Your task to perform on an android device: Go to Yahoo.com Image 0: 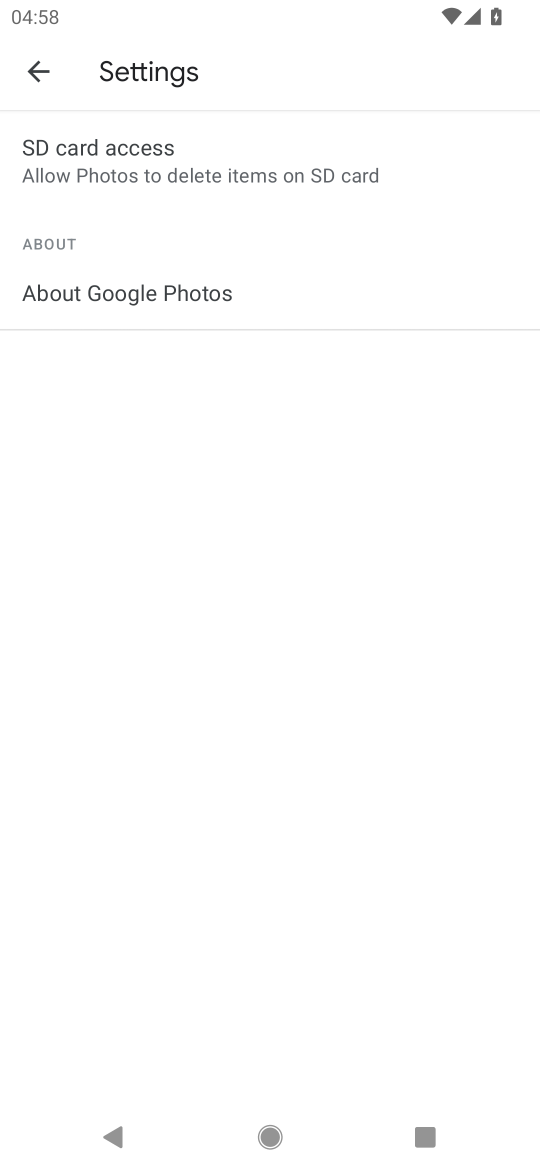
Step 0: press home button
Your task to perform on an android device: Go to Yahoo.com Image 1: 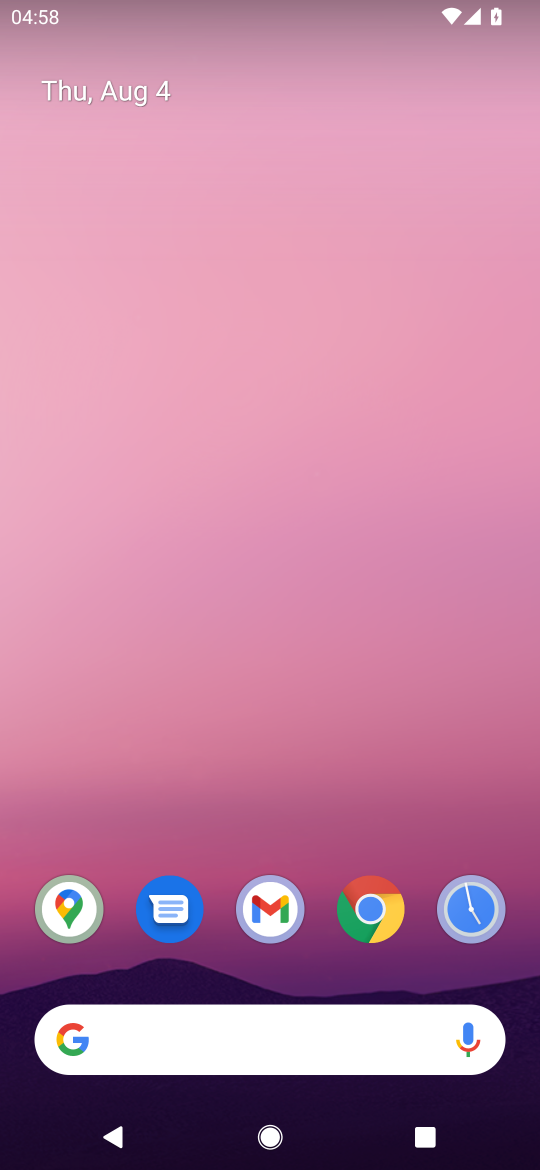
Step 1: click (65, 1035)
Your task to perform on an android device: Go to Yahoo.com Image 2: 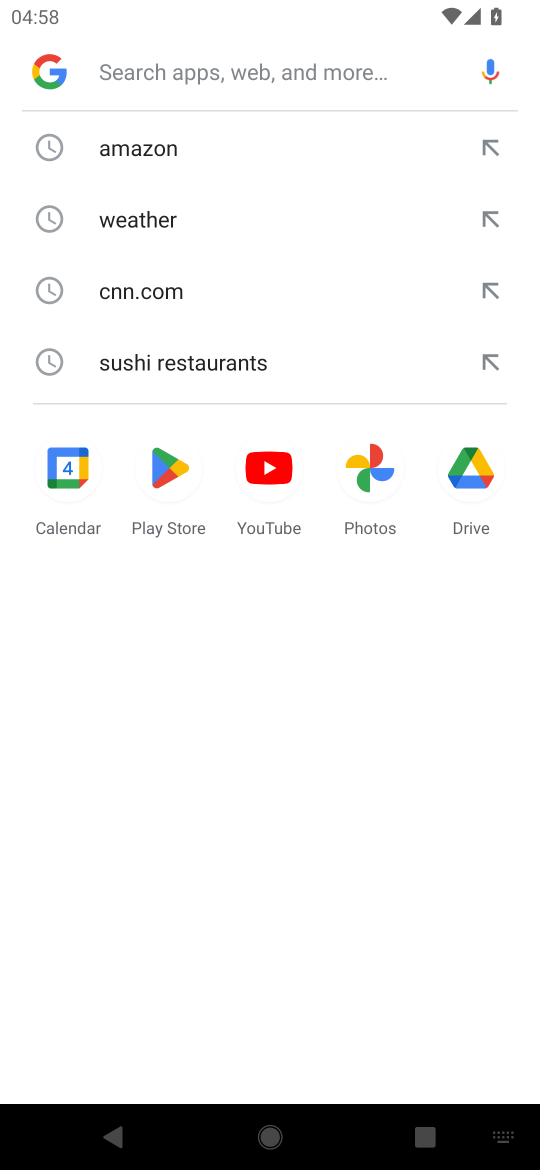
Step 2: type "Yahoo.com"
Your task to perform on an android device: Go to Yahoo.com Image 3: 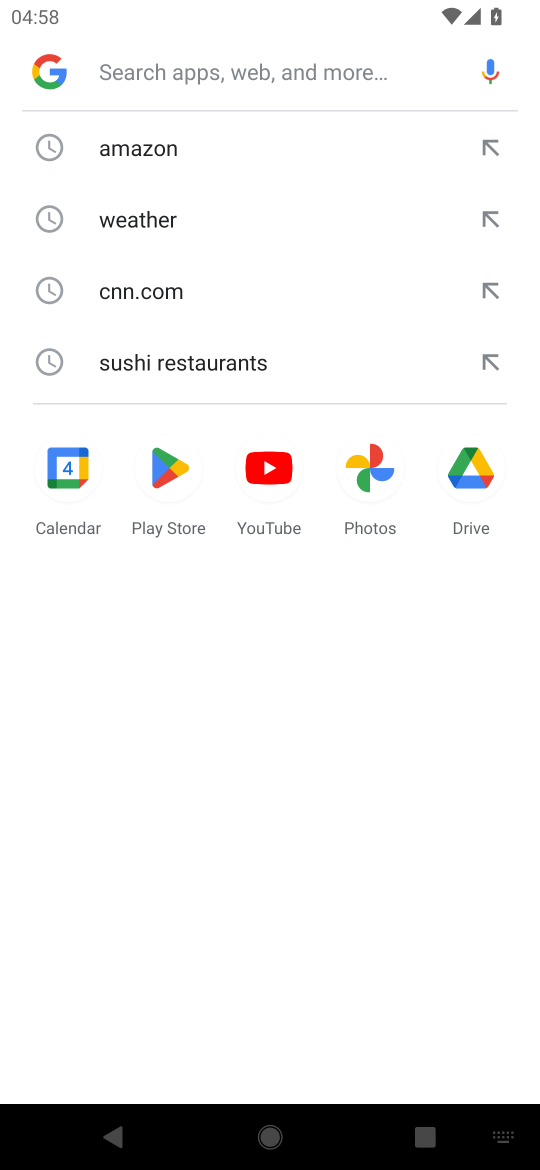
Step 3: click (171, 74)
Your task to perform on an android device: Go to Yahoo.com Image 4: 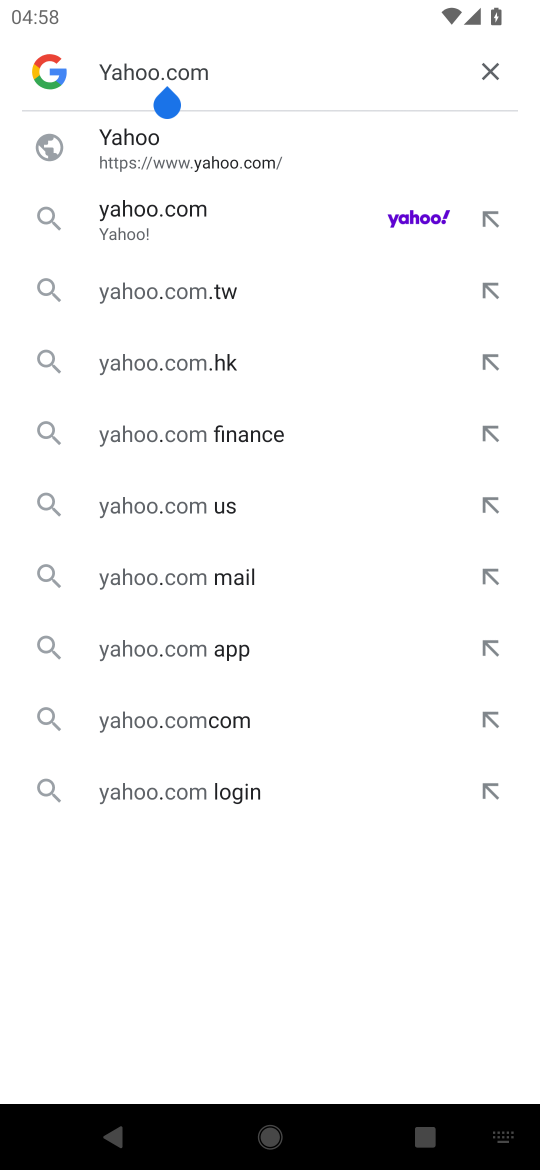
Step 4: click (430, 216)
Your task to perform on an android device: Go to Yahoo.com Image 5: 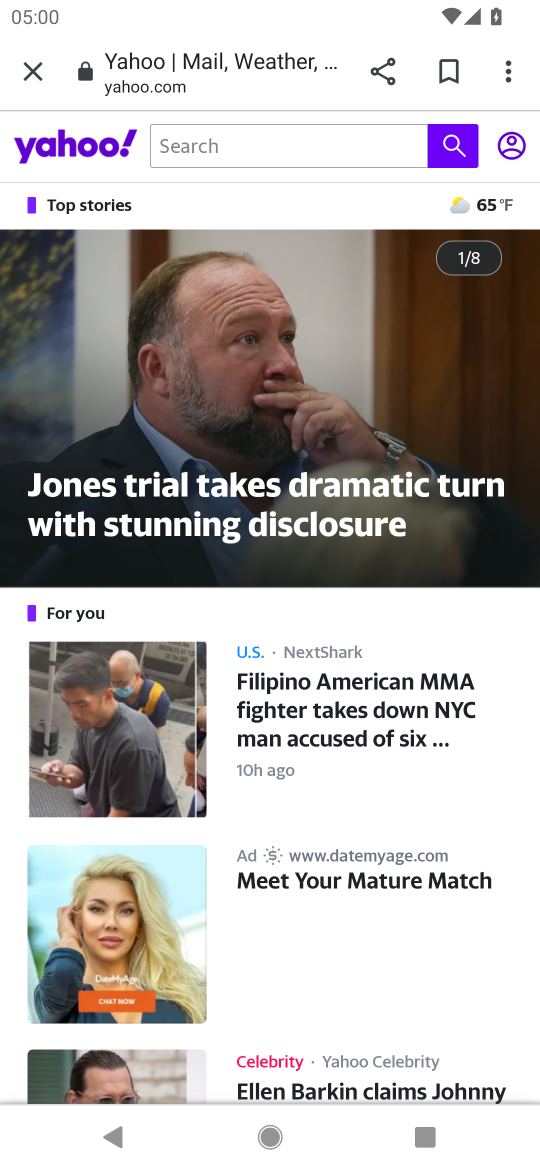
Step 5: task complete